Your task to perform on an android device: Open Chrome and go to settings Image 0: 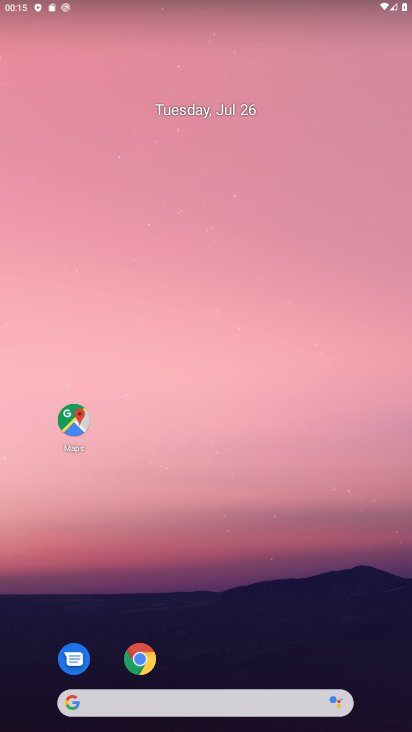
Step 0: drag from (311, 605) to (317, 41)
Your task to perform on an android device: Open Chrome and go to settings Image 1: 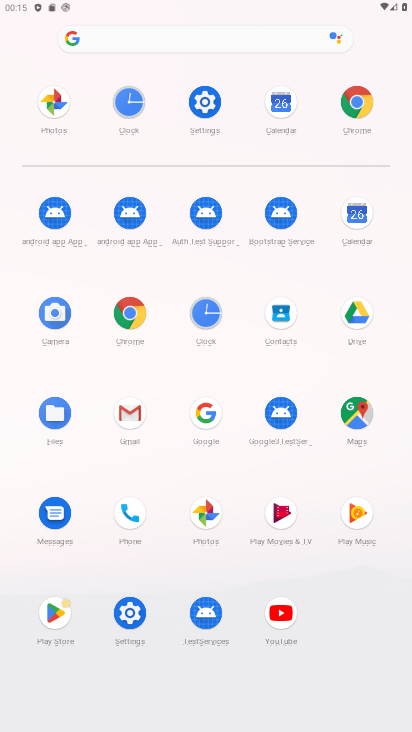
Step 1: click (359, 105)
Your task to perform on an android device: Open Chrome and go to settings Image 2: 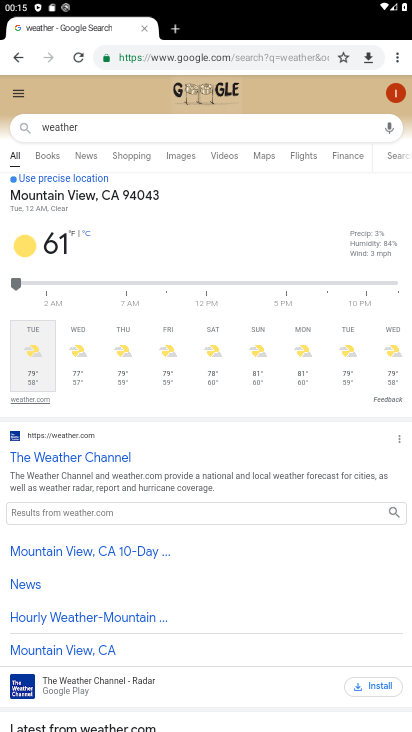
Step 2: task complete